Your task to perform on an android device: Go to wifi settings Image 0: 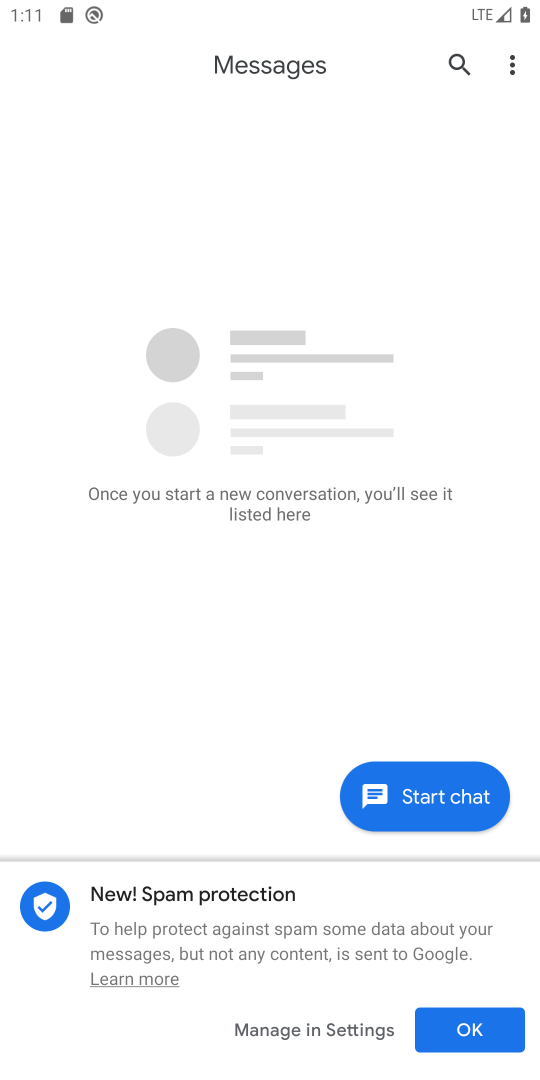
Step 0: press home button
Your task to perform on an android device: Go to wifi settings Image 1: 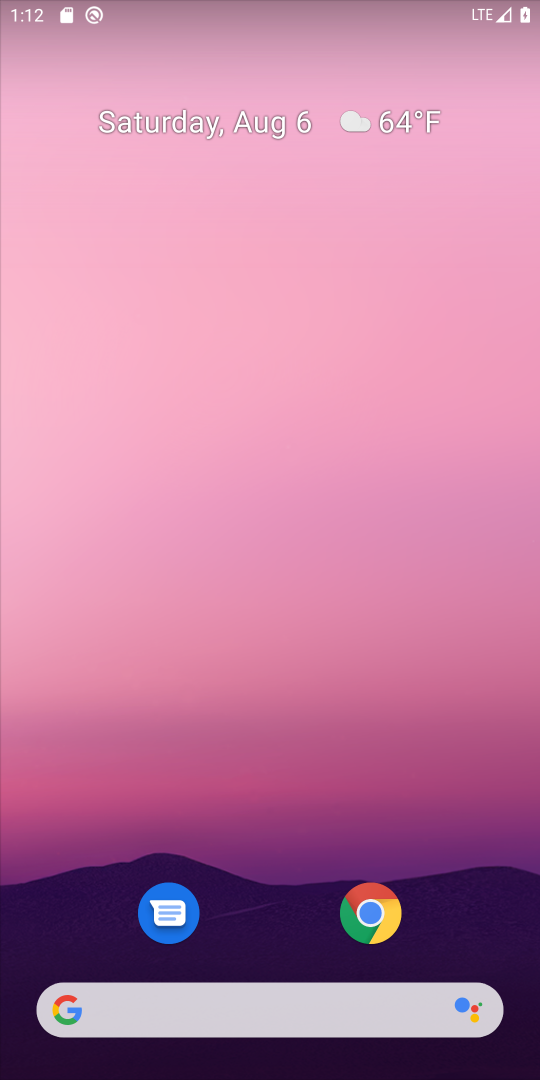
Step 1: drag from (294, 738) to (308, 130)
Your task to perform on an android device: Go to wifi settings Image 2: 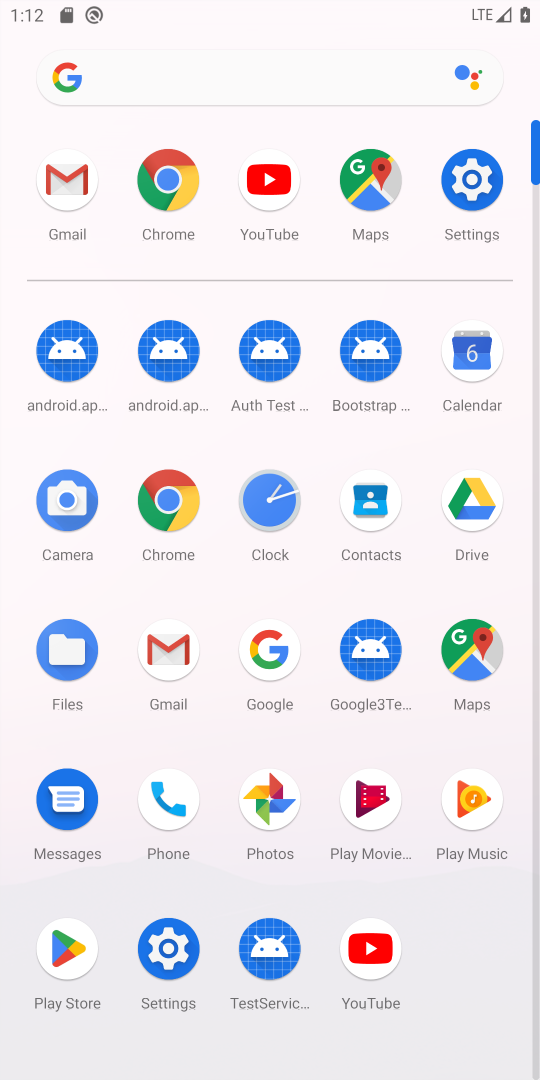
Step 2: click (473, 181)
Your task to perform on an android device: Go to wifi settings Image 3: 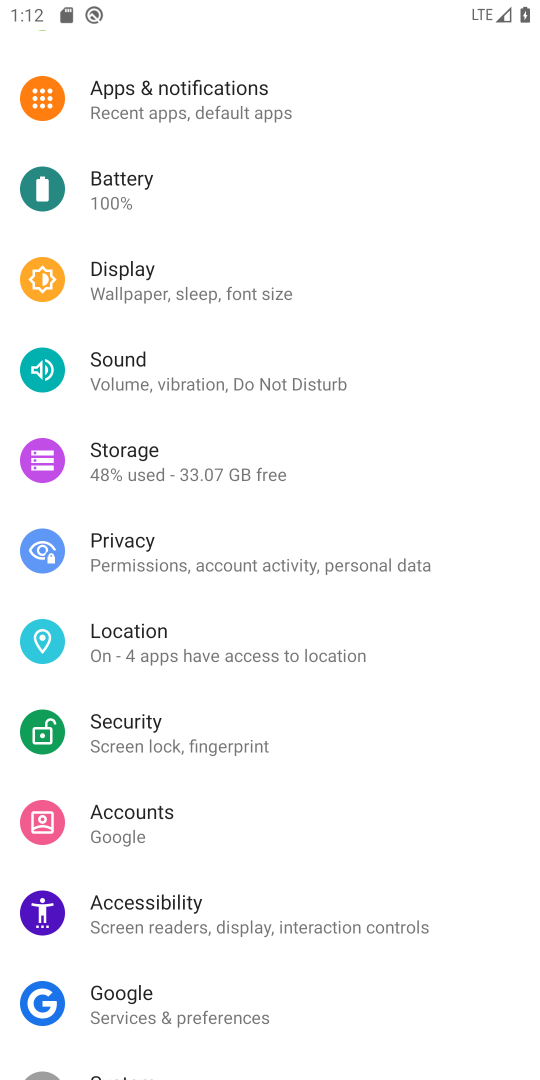
Step 3: drag from (450, 299) to (473, 495)
Your task to perform on an android device: Go to wifi settings Image 4: 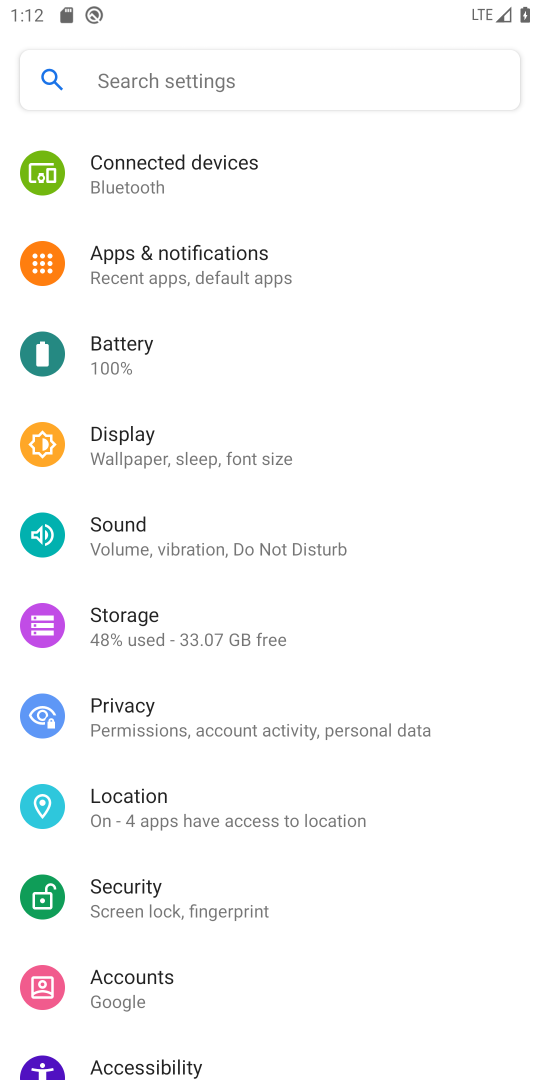
Step 4: drag from (469, 234) to (481, 500)
Your task to perform on an android device: Go to wifi settings Image 5: 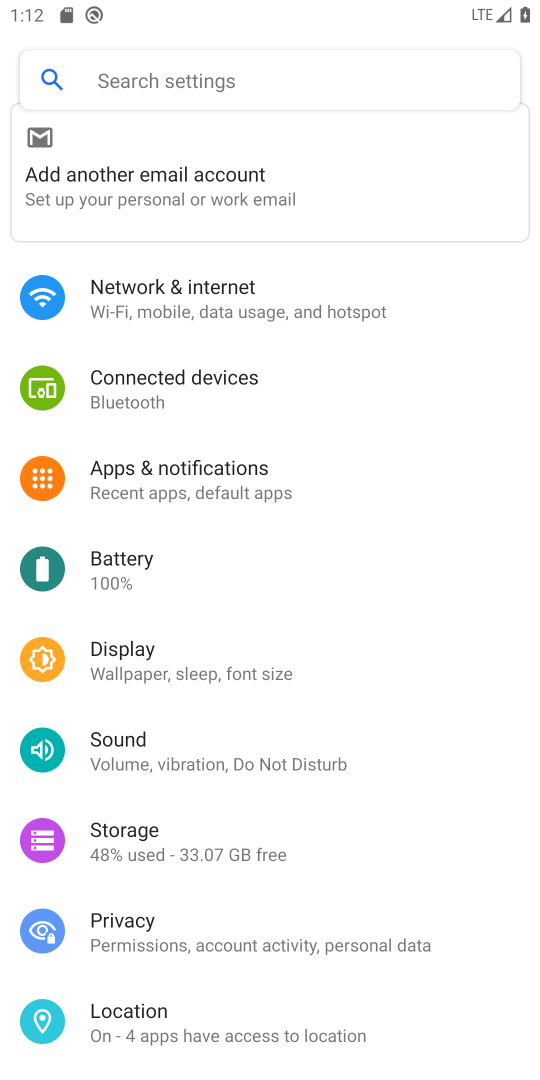
Step 5: click (237, 285)
Your task to perform on an android device: Go to wifi settings Image 6: 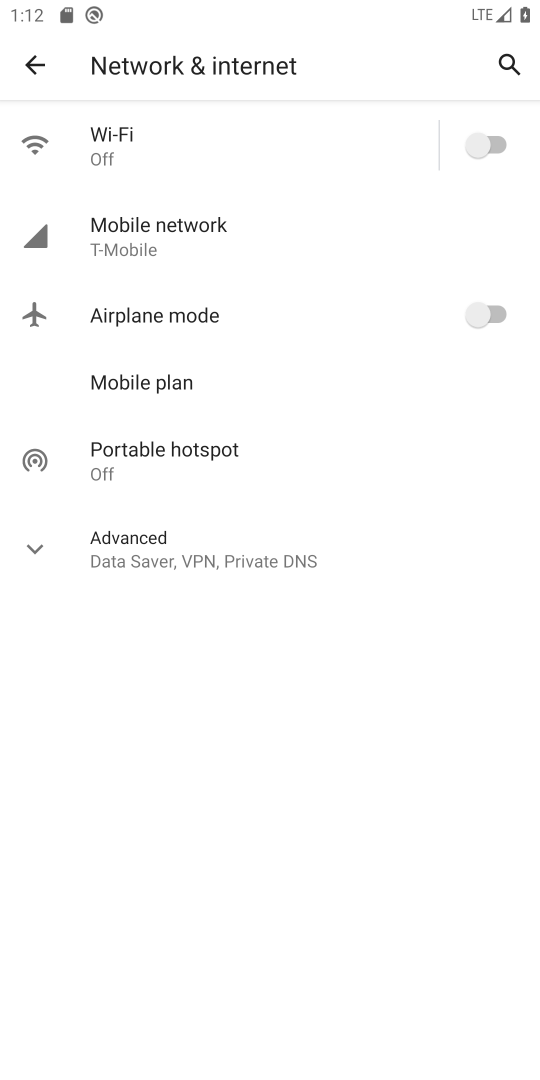
Step 6: click (149, 127)
Your task to perform on an android device: Go to wifi settings Image 7: 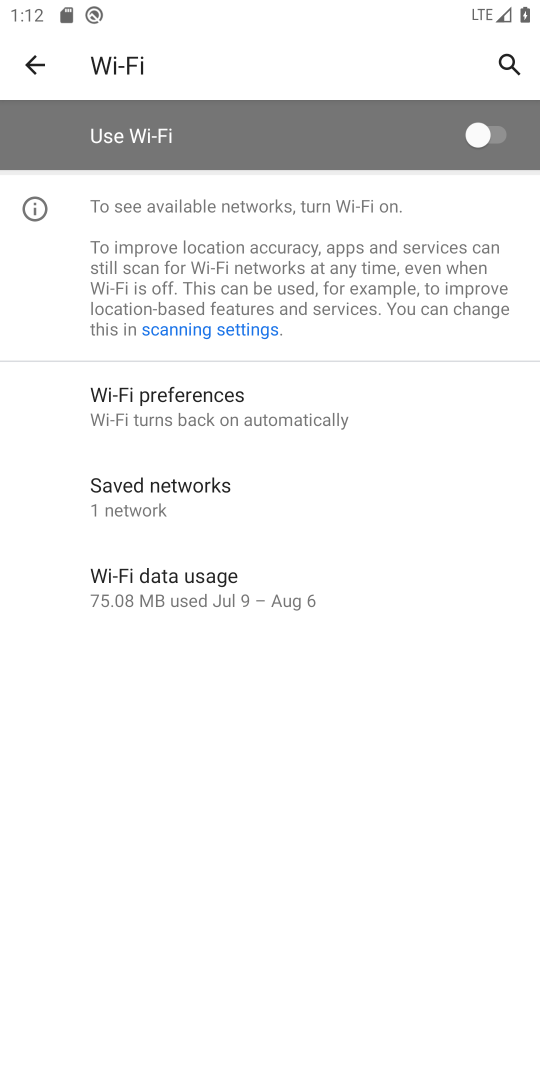
Step 7: task complete